Your task to perform on an android device: Open Google Chrome and click the shortcut for Amazon.com Image 0: 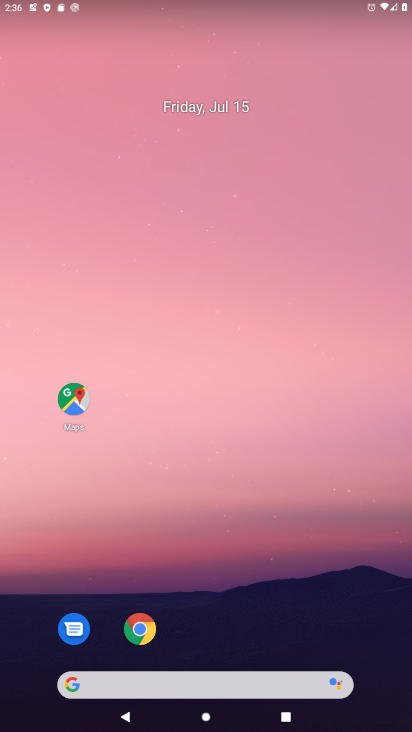
Step 0: drag from (290, 515) to (264, 3)
Your task to perform on an android device: Open Google Chrome and click the shortcut for Amazon.com Image 1: 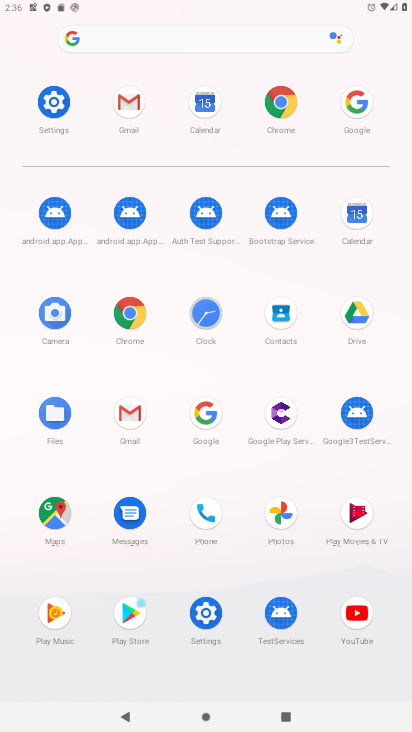
Step 1: click (277, 98)
Your task to perform on an android device: Open Google Chrome and click the shortcut for Amazon.com Image 2: 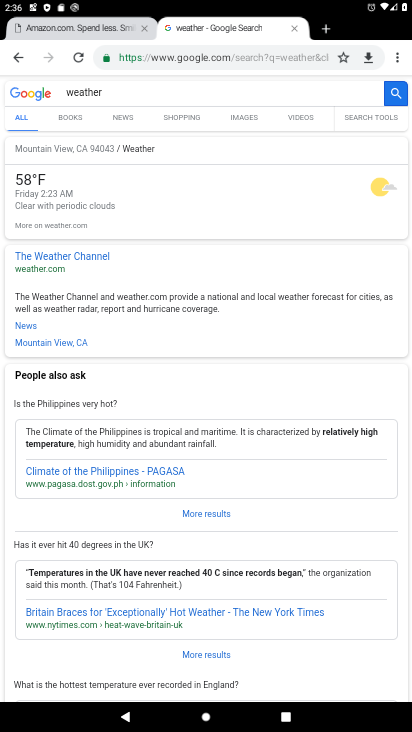
Step 2: click (327, 26)
Your task to perform on an android device: Open Google Chrome and click the shortcut for Amazon.com Image 3: 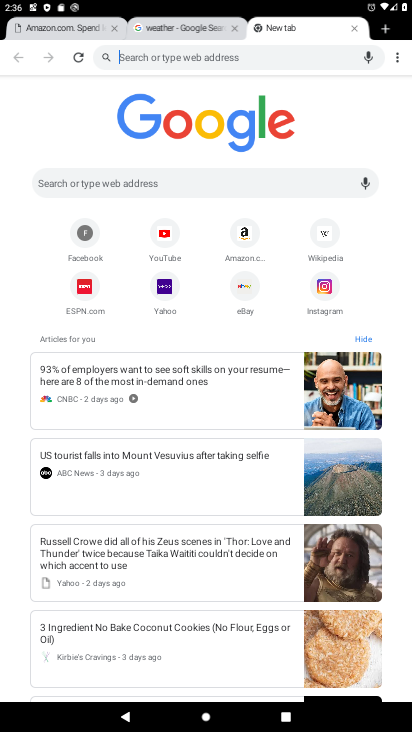
Step 3: click (232, 230)
Your task to perform on an android device: Open Google Chrome and click the shortcut for Amazon.com Image 4: 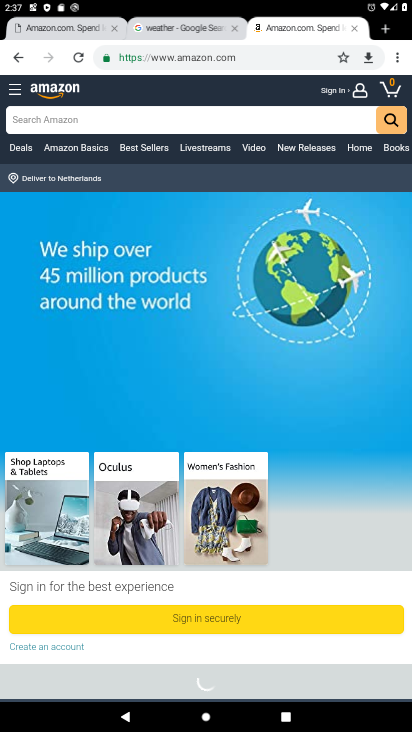
Step 4: task complete